Your task to perform on an android device: Open Google Image 0: 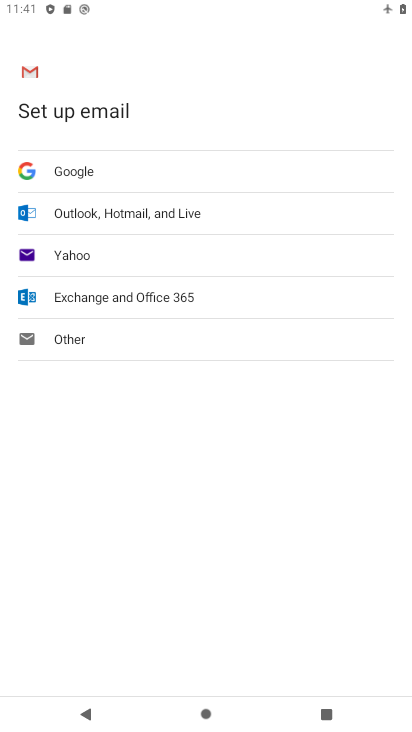
Step 0: press home button
Your task to perform on an android device: Open Google Image 1: 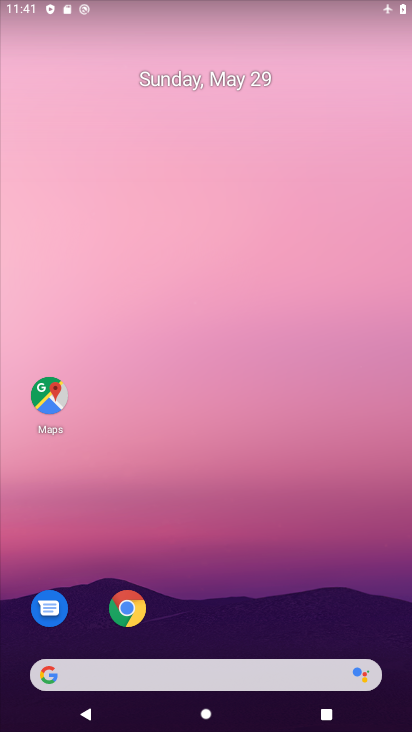
Step 1: click (205, 666)
Your task to perform on an android device: Open Google Image 2: 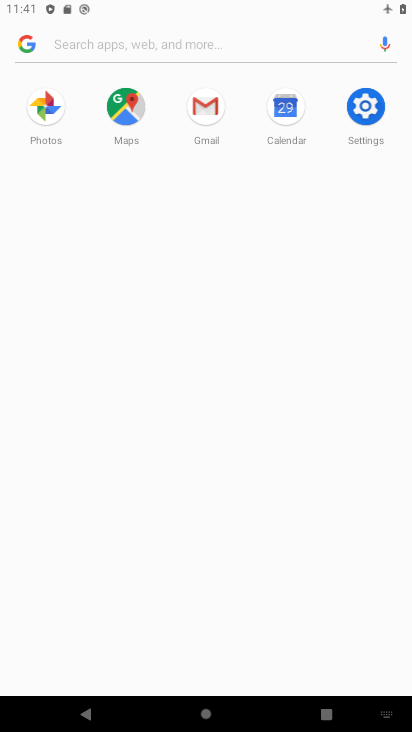
Step 2: task complete